Your task to perform on an android device: Open display settings Image 0: 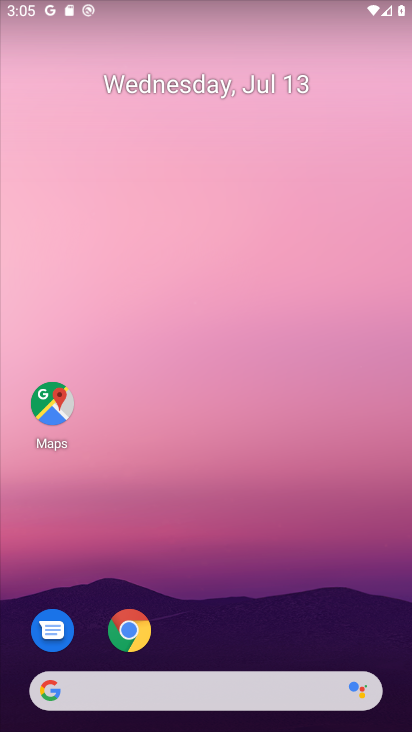
Step 0: drag from (200, 494) to (247, 43)
Your task to perform on an android device: Open display settings Image 1: 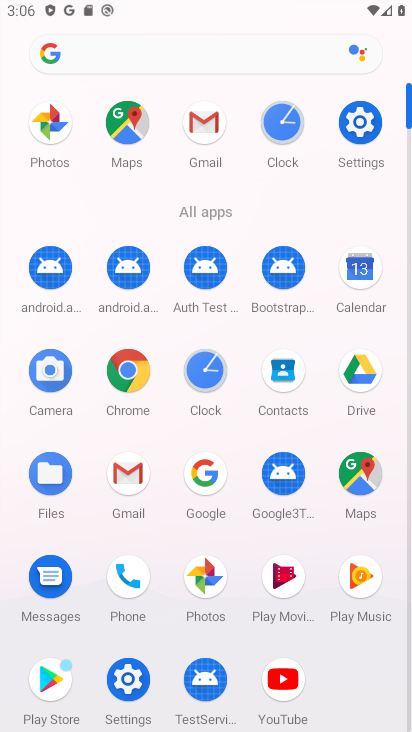
Step 1: click (360, 121)
Your task to perform on an android device: Open display settings Image 2: 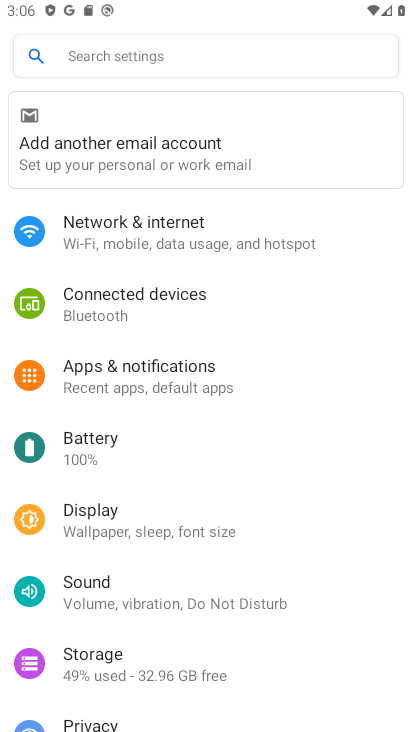
Step 2: click (79, 531)
Your task to perform on an android device: Open display settings Image 3: 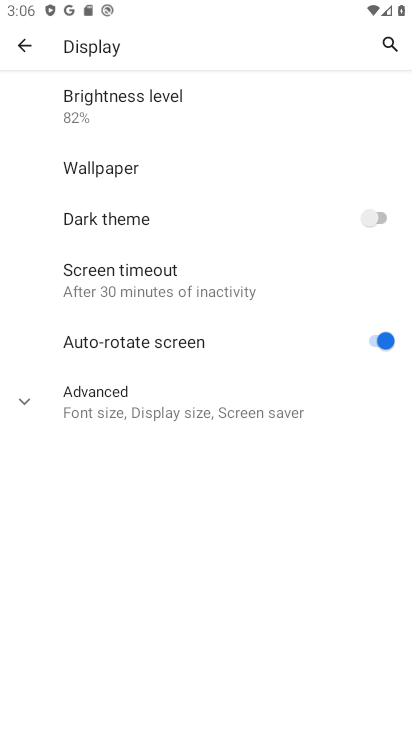
Step 3: task complete